Your task to perform on an android device: Go to Yahoo.com Image 0: 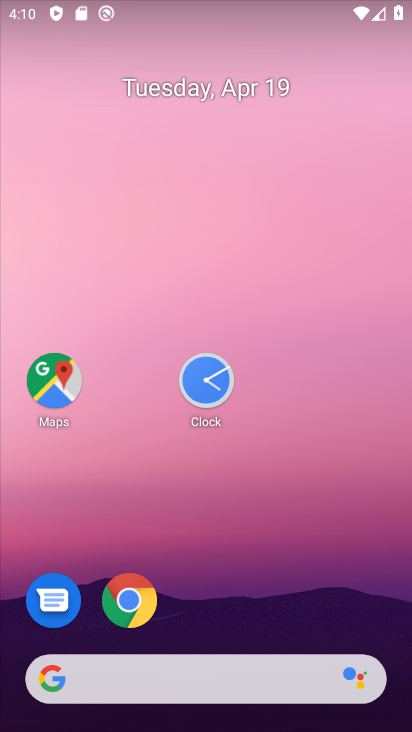
Step 0: drag from (328, 610) to (150, 149)
Your task to perform on an android device: Go to Yahoo.com Image 1: 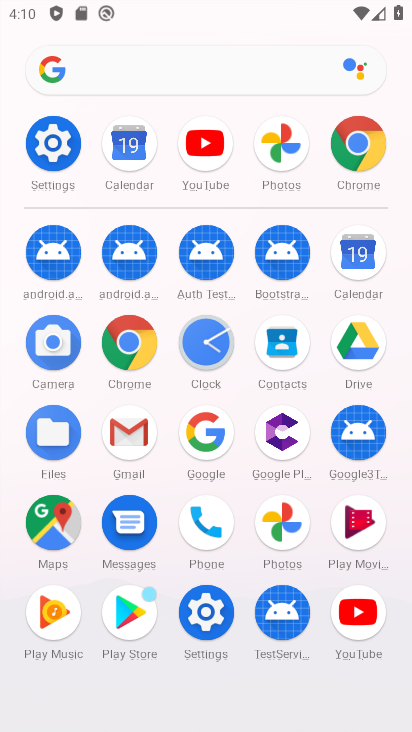
Step 1: click (351, 150)
Your task to perform on an android device: Go to Yahoo.com Image 2: 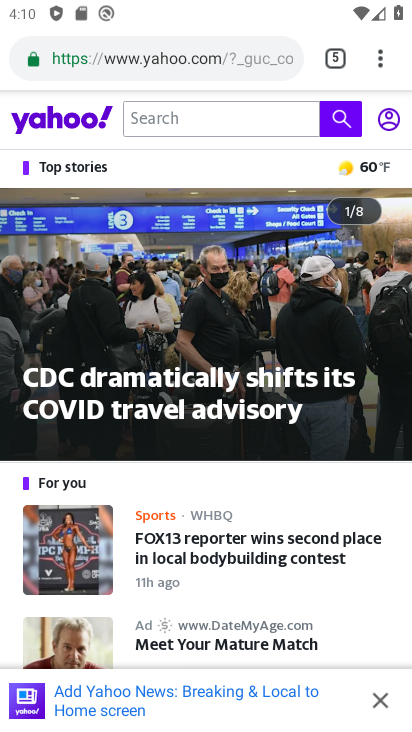
Step 2: click (380, 63)
Your task to perform on an android device: Go to Yahoo.com Image 3: 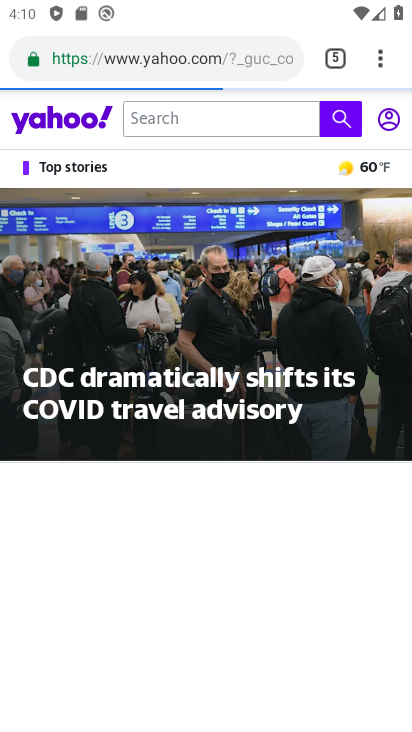
Step 3: click (380, 63)
Your task to perform on an android device: Go to Yahoo.com Image 4: 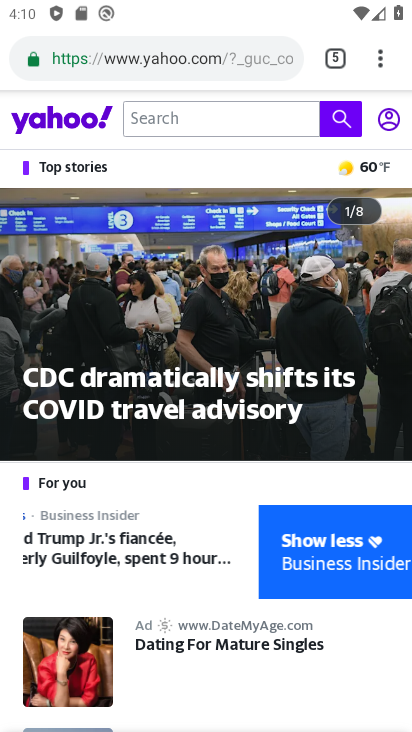
Step 4: click (196, 55)
Your task to perform on an android device: Go to Yahoo.com Image 5: 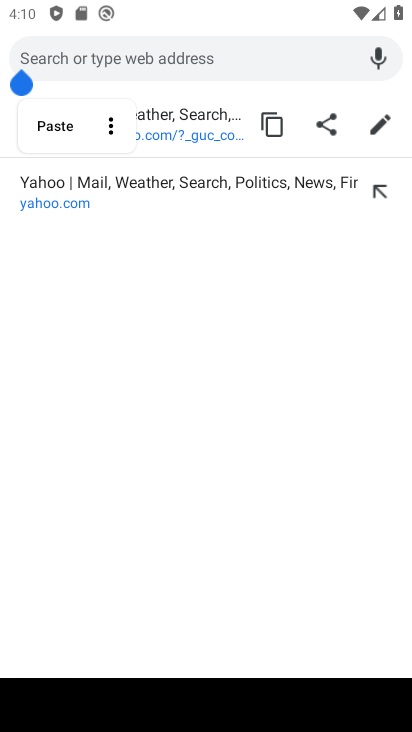
Step 5: click (227, 56)
Your task to perform on an android device: Go to Yahoo.com Image 6: 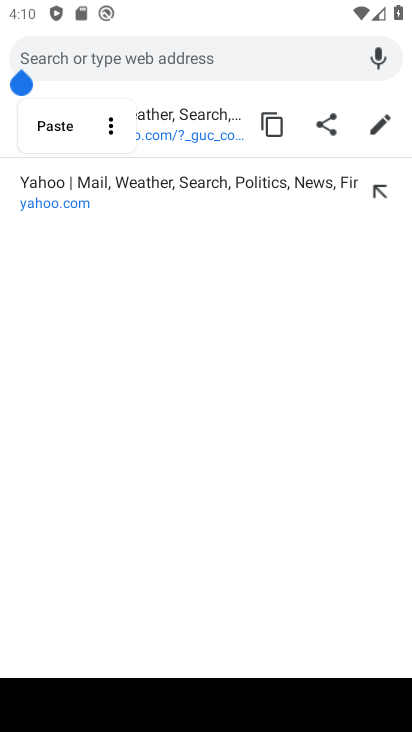
Step 6: task complete